Your task to perform on an android device: Go to settings Image 0: 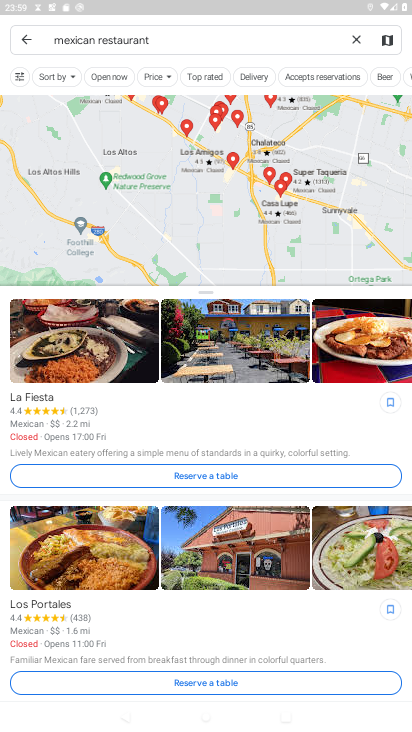
Step 0: press home button
Your task to perform on an android device: Go to settings Image 1: 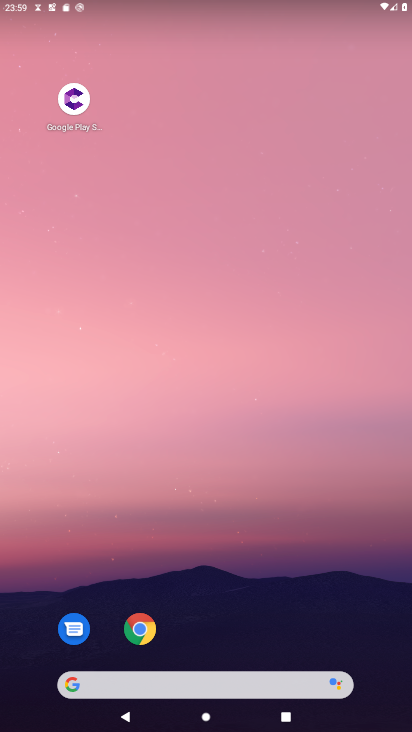
Step 1: drag from (215, 638) to (222, 48)
Your task to perform on an android device: Go to settings Image 2: 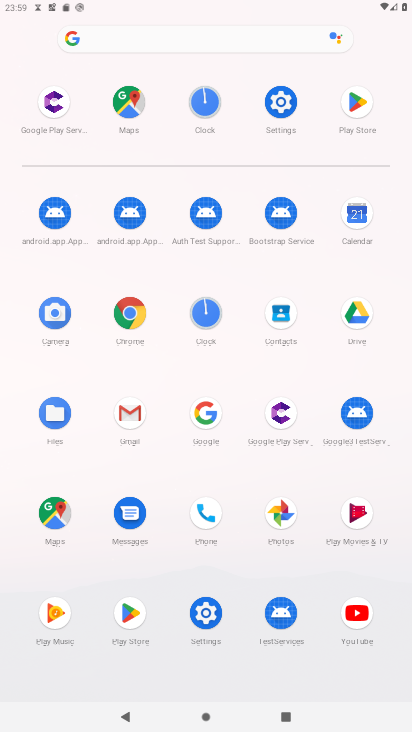
Step 2: click (287, 96)
Your task to perform on an android device: Go to settings Image 3: 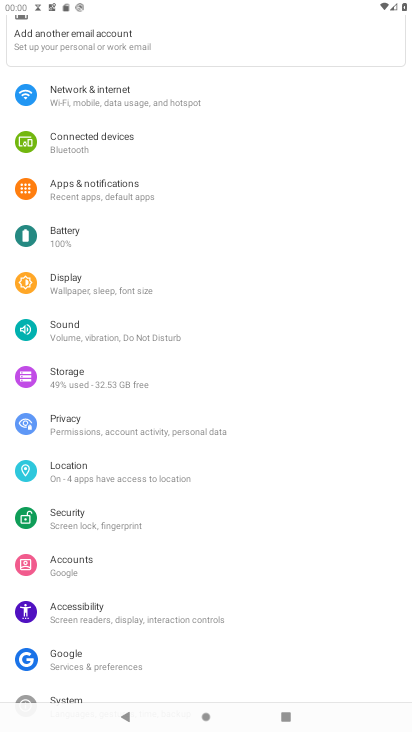
Step 3: task complete